Your task to perform on an android device: Go to eBay Image 0: 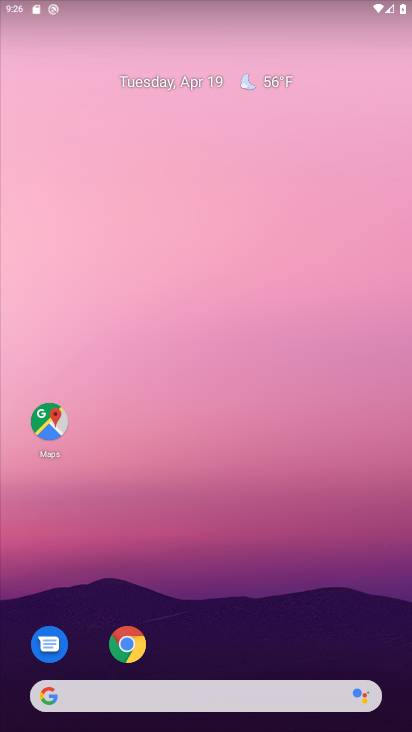
Step 0: click (184, 696)
Your task to perform on an android device: Go to eBay Image 1: 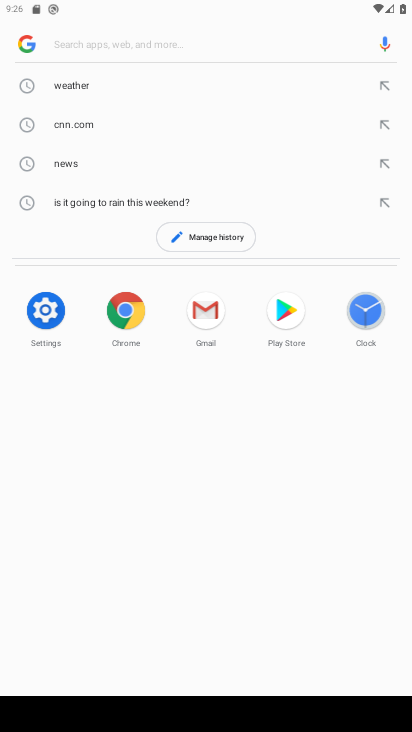
Step 1: click (112, 44)
Your task to perform on an android device: Go to eBay Image 2: 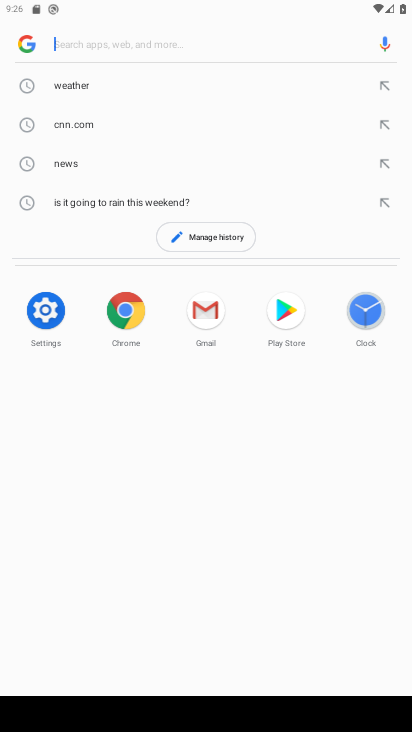
Step 2: type "eBay"
Your task to perform on an android device: Go to eBay Image 3: 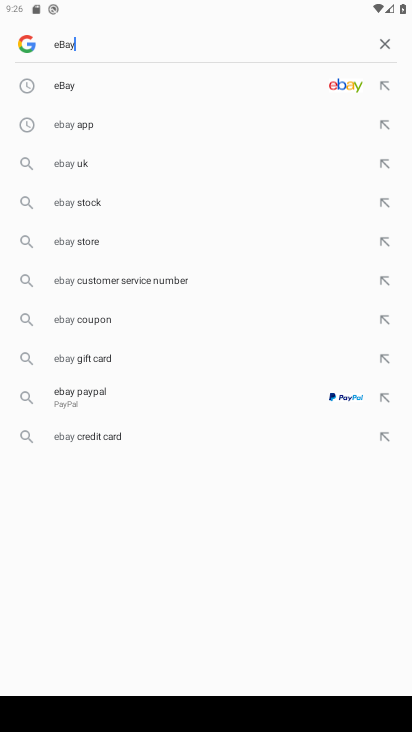
Step 3: click (62, 86)
Your task to perform on an android device: Go to eBay Image 4: 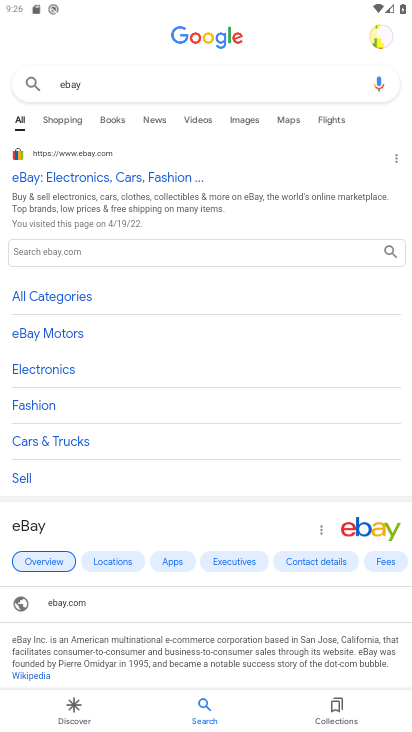
Step 4: click (92, 172)
Your task to perform on an android device: Go to eBay Image 5: 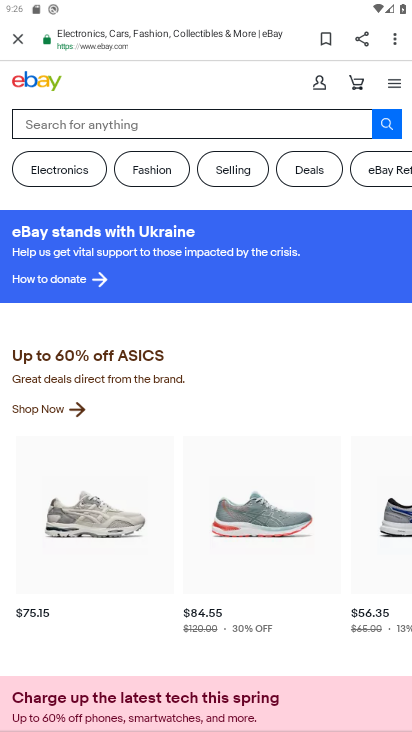
Step 5: task complete